Your task to perform on an android device: Go to Wikipedia Image 0: 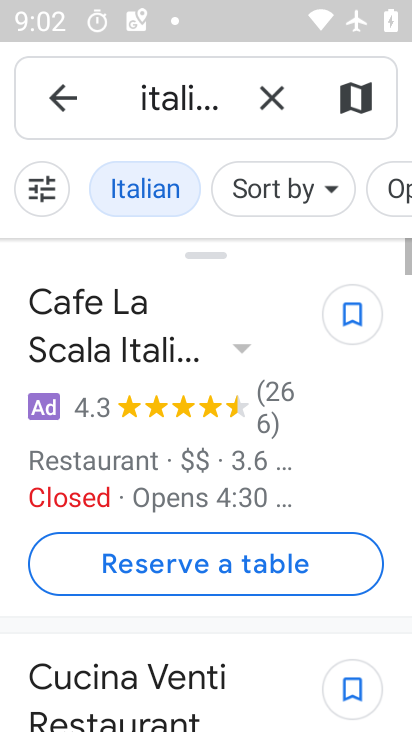
Step 0: press home button
Your task to perform on an android device: Go to Wikipedia Image 1: 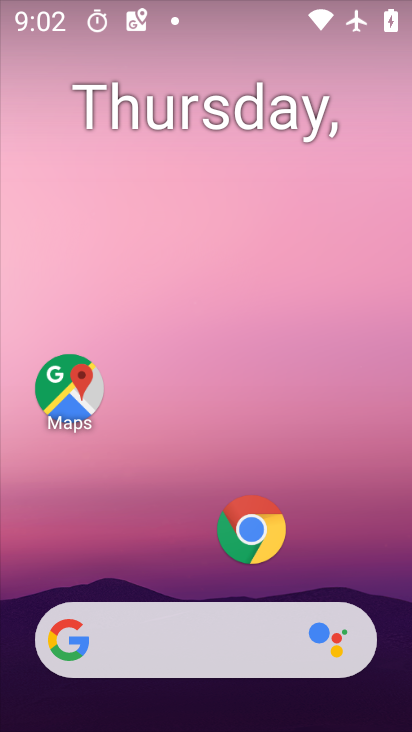
Step 1: click (257, 523)
Your task to perform on an android device: Go to Wikipedia Image 2: 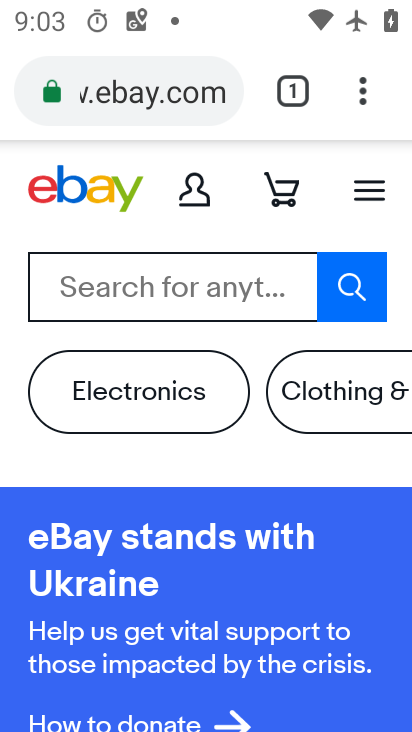
Step 2: click (284, 87)
Your task to perform on an android device: Go to Wikipedia Image 3: 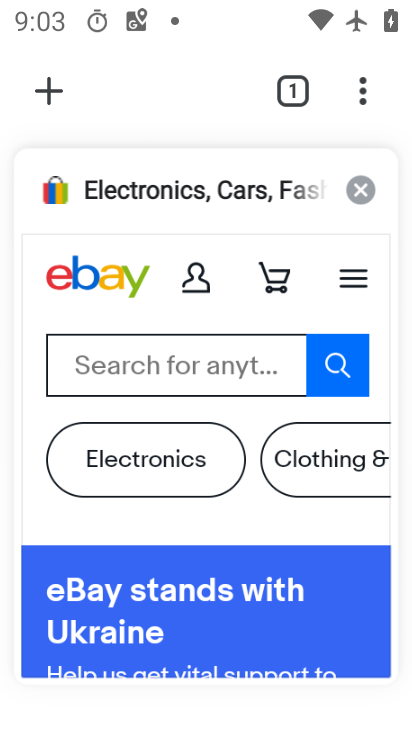
Step 3: click (354, 185)
Your task to perform on an android device: Go to Wikipedia Image 4: 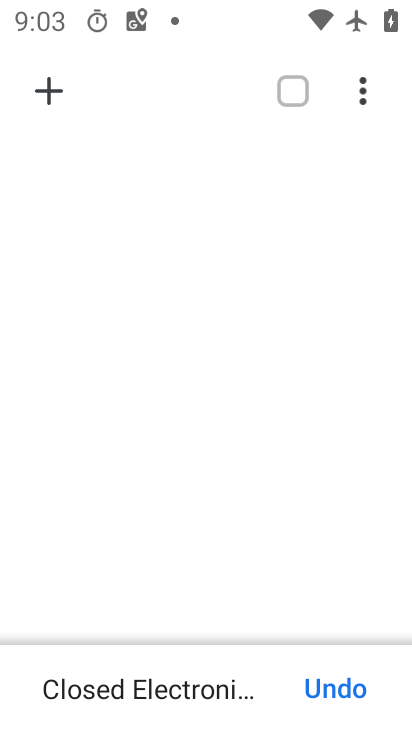
Step 4: click (45, 83)
Your task to perform on an android device: Go to Wikipedia Image 5: 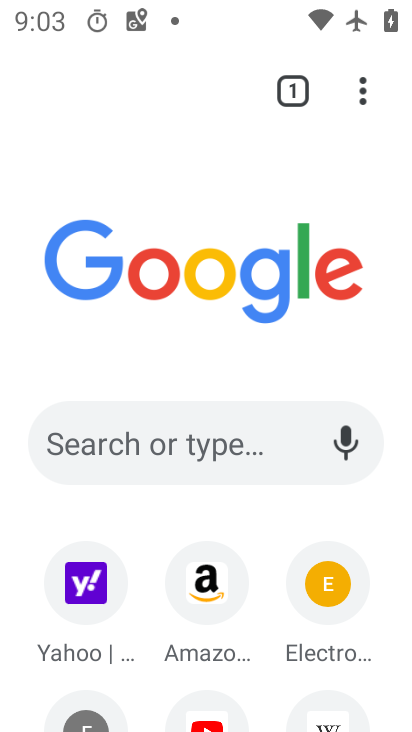
Step 5: click (335, 701)
Your task to perform on an android device: Go to Wikipedia Image 6: 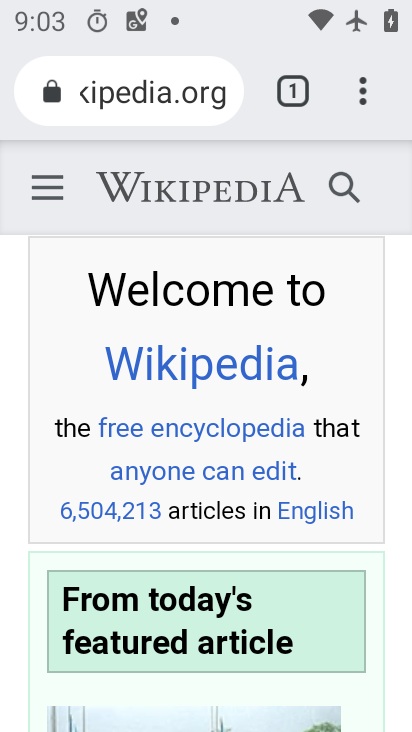
Step 6: task complete